Your task to perform on an android device: open a new tab in the chrome app Image 0: 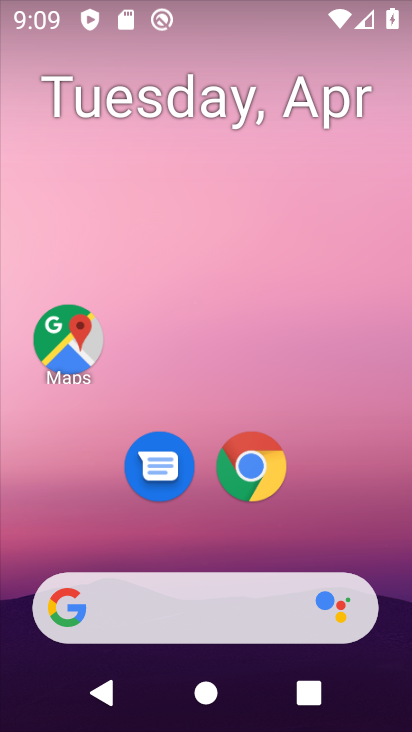
Step 0: click (245, 480)
Your task to perform on an android device: open a new tab in the chrome app Image 1: 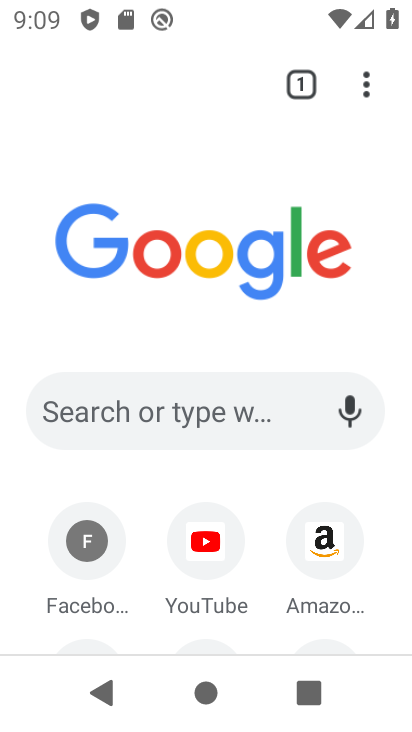
Step 1: click (377, 74)
Your task to perform on an android device: open a new tab in the chrome app Image 2: 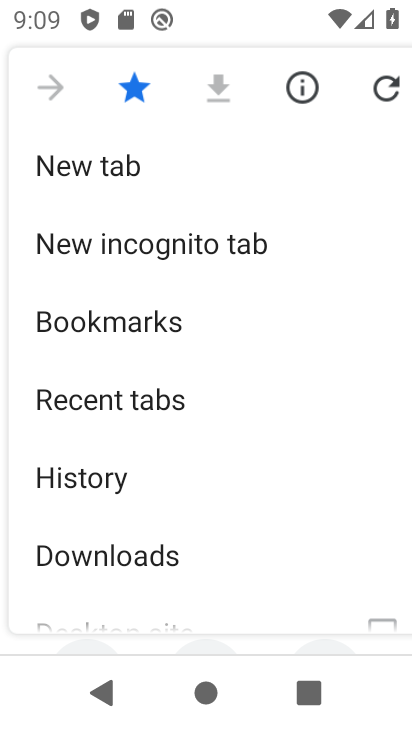
Step 2: click (207, 515)
Your task to perform on an android device: open a new tab in the chrome app Image 3: 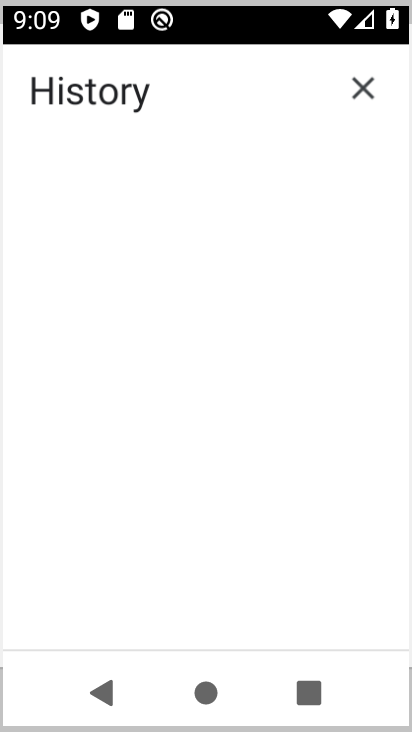
Step 3: drag from (207, 515) to (173, 459)
Your task to perform on an android device: open a new tab in the chrome app Image 4: 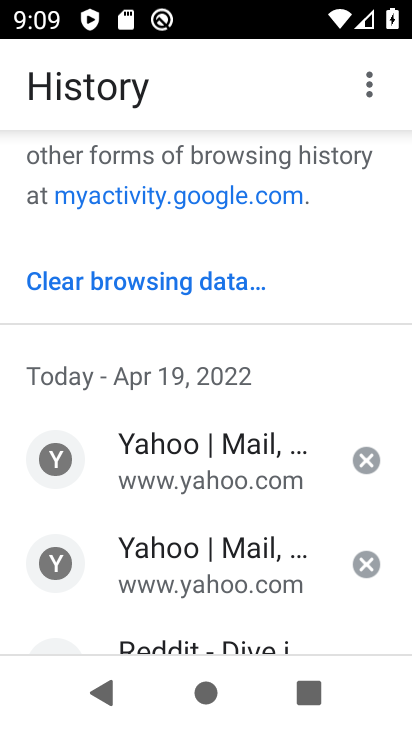
Step 4: click (93, 678)
Your task to perform on an android device: open a new tab in the chrome app Image 5: 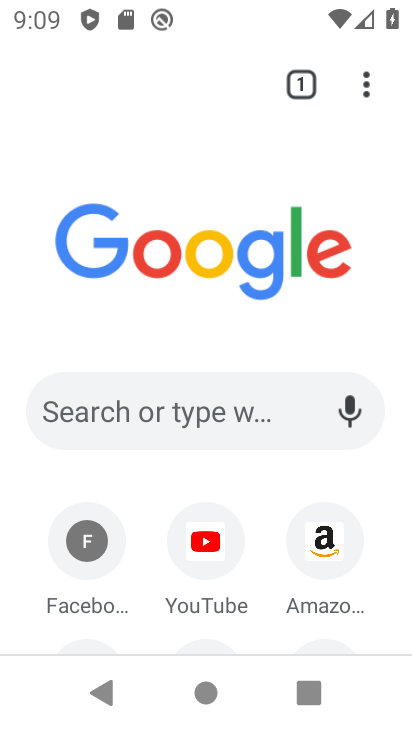
Step 5: click (384, 96)
Your task to perform on an android device: open a new tab in the chrome app Image 6: 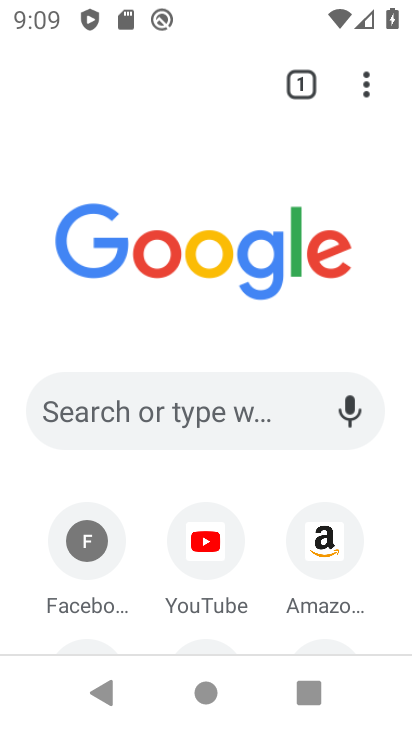
Step 6: click (373, 98)
Your task to perform on an android device: open a new tab in the chrome app Image 7: 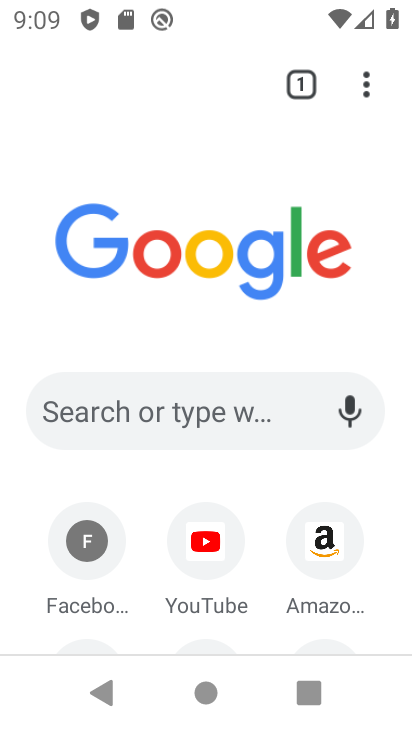
Step 7: click (310, 82)
Your task to perform on an android device: open a new tab in the chrome app Image 8: 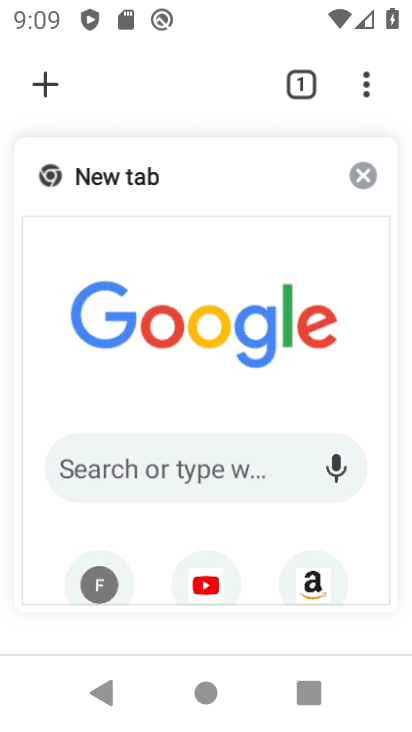
Step 8: click (38, 95)
Your task to perform on an android device: open a new tab in the chrome app Image 9: 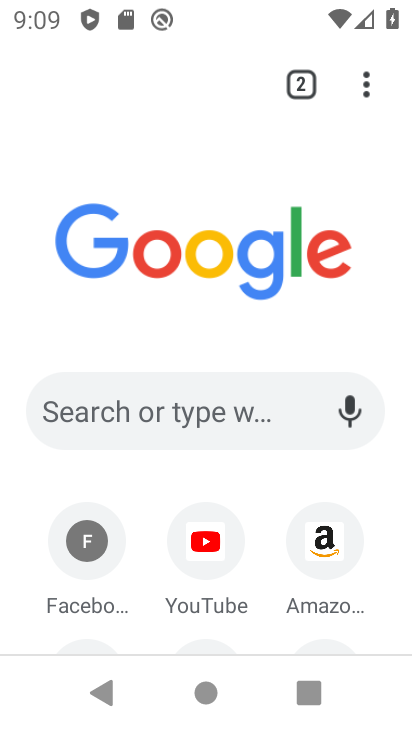
Step 9: task complete